Your task to perform on an android device: search for starred emails in the gmail app Image 0: 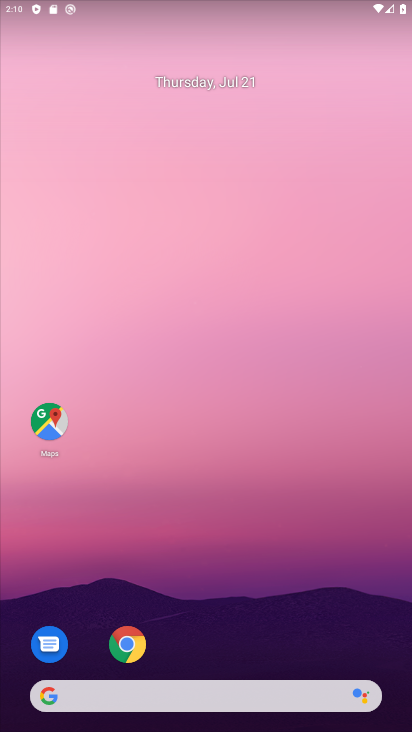
Step 0: drag from (241, 649) to (171, 245)
Your task to perform on an android device: search for starred emails in the gmail app Image 1: 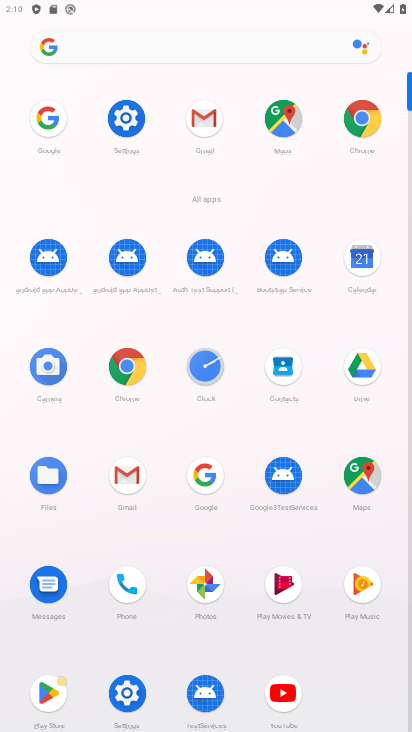
Step 1: click (205, 118)
Your task to perform on an android device: search for starred emails in the gmail app Image 2: 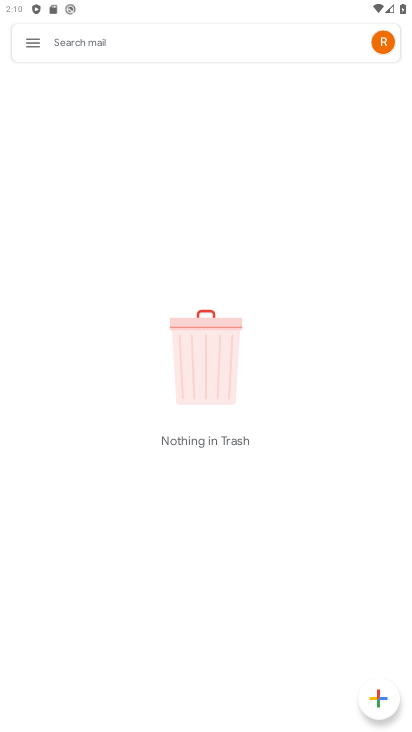
Step 2: click (24, 32)
Your task to perform on an android device: search for starred emails in the gmail app Image 3: 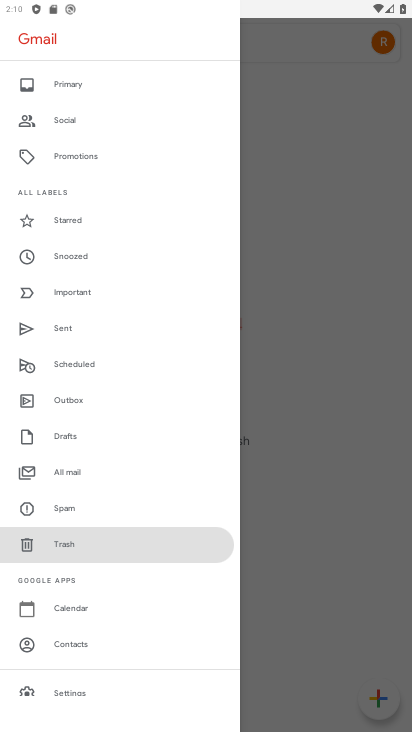
Step 3: click (83, 219)
Your task to perform on an android device: search for starred emails in the gmail app Image 4: 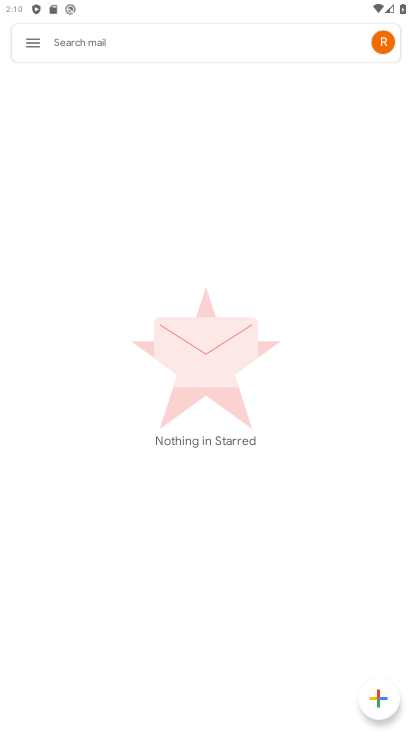
Step 4: task complete